Your task to perform on an android device: open app "WhatsApp Messenger" (install if not already installed), go to login, and select forgot password Image 0: 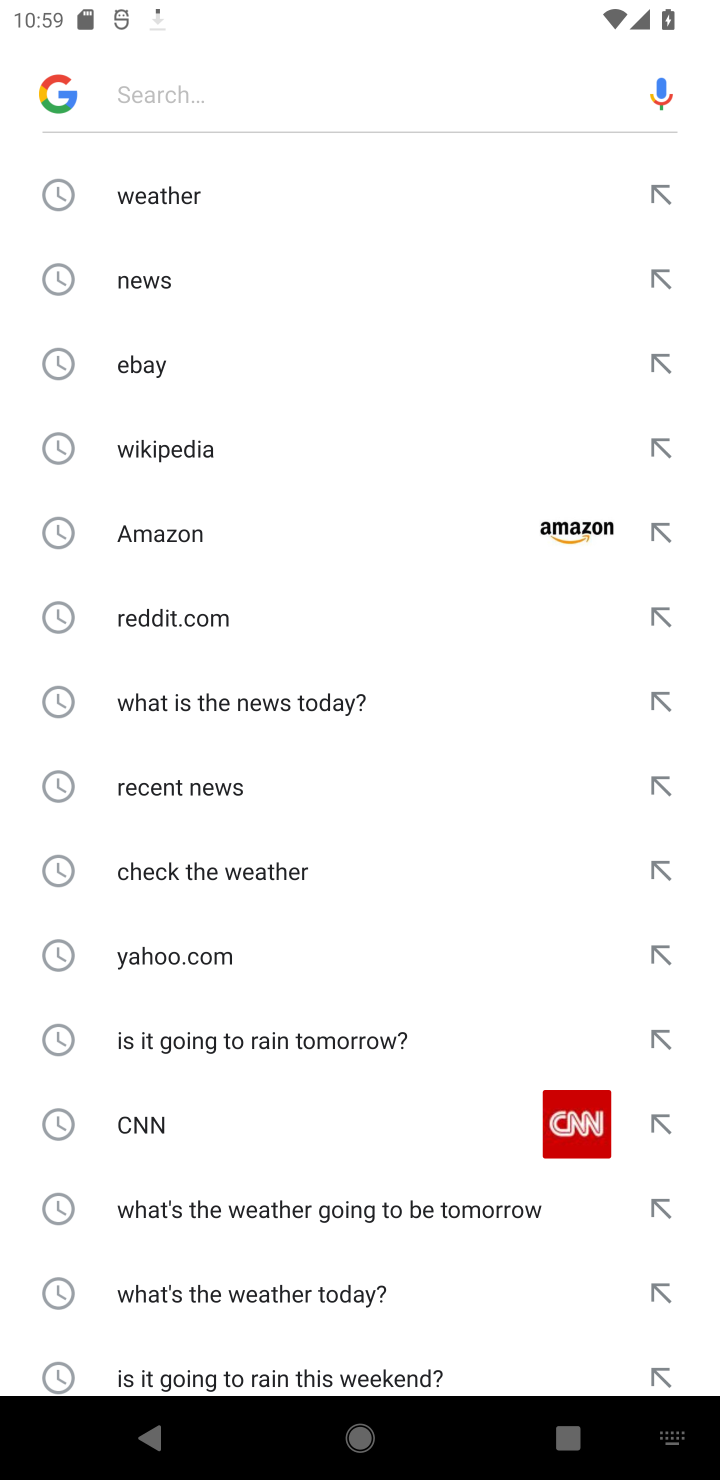
Step 0: click (583, 97)
Your task to perform on an android device: open app "WhatsApp Messenger" (install if not already installed), go to login, and select forgot password Image 1: 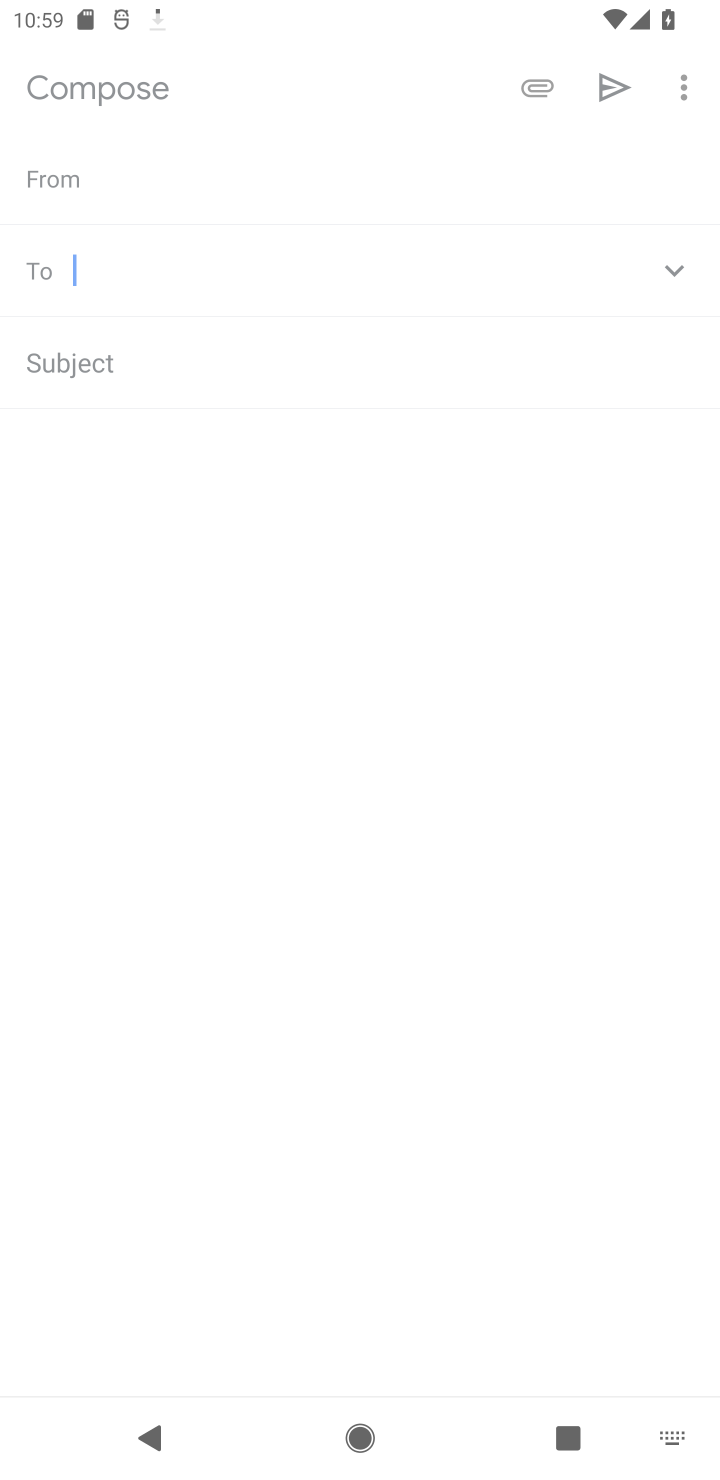
Step 1: click (654, 88)
Your task to perform on an android device: open app "WhatsApp Messenger" (install if not already installed), go to login, and select forgot password Image 2: 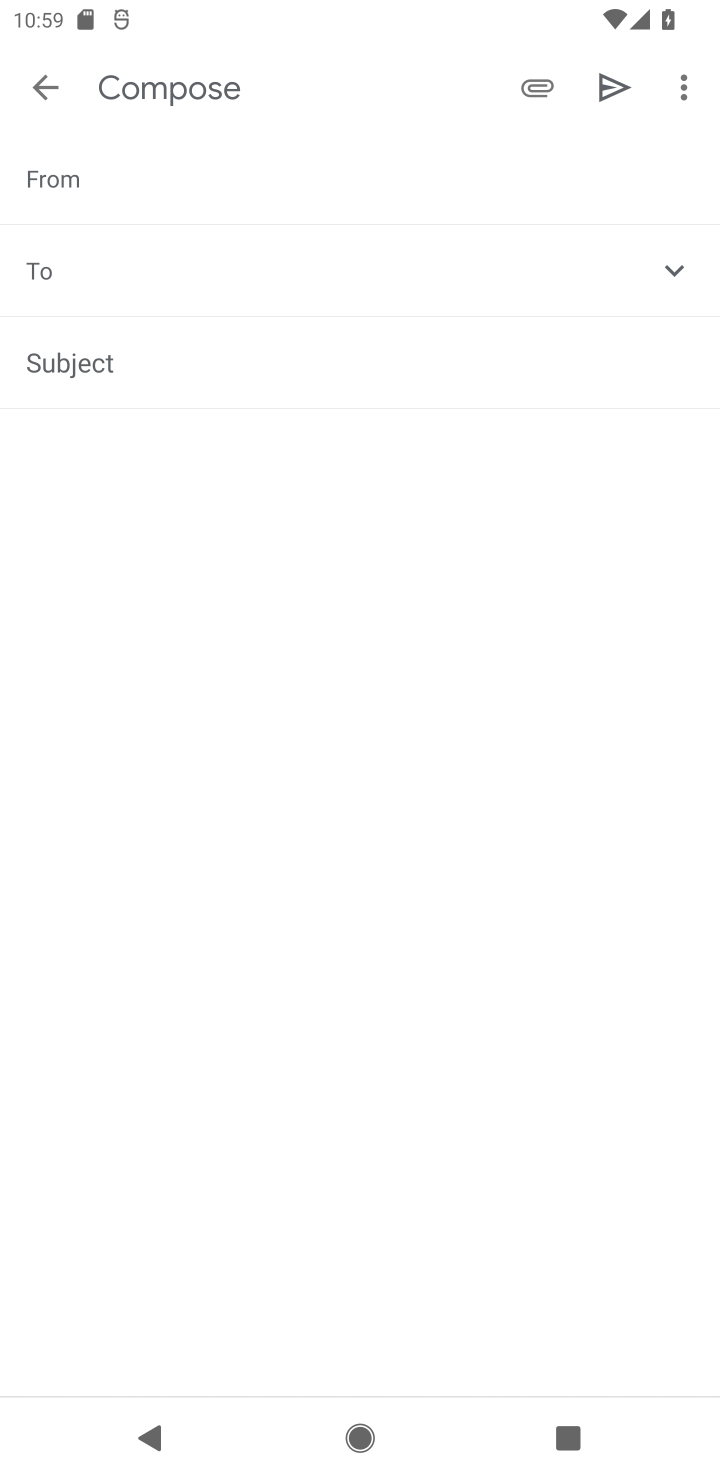
Step 2: press home button
Your task to perform on an android device: open app "WhatsApp Messenger" (install if not already installed), go to login, and select forgot password Image 3: 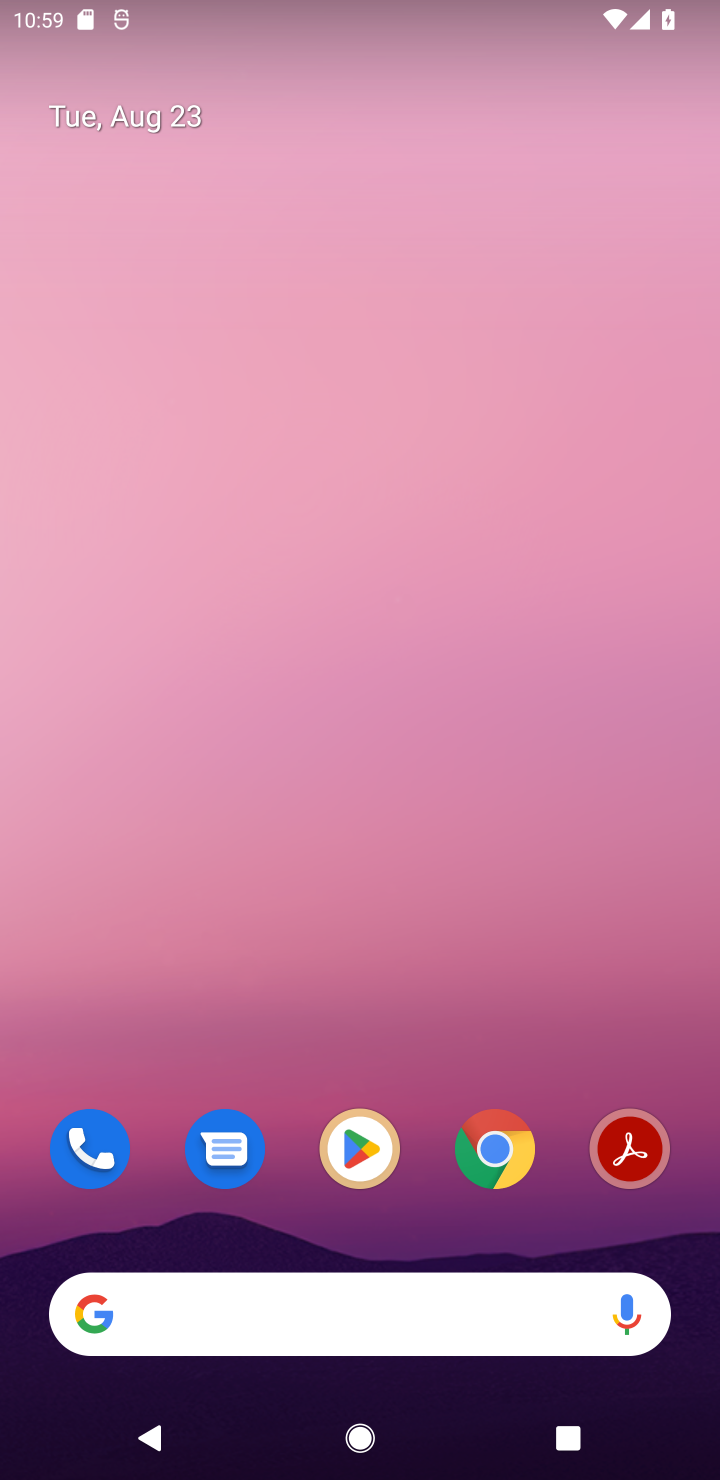
Step 3: click (363, 1163)
Your task to perform on an android device: open app "WhatsApp Messenger" (install if not already installed), go to login, and select forgot password Image 4: 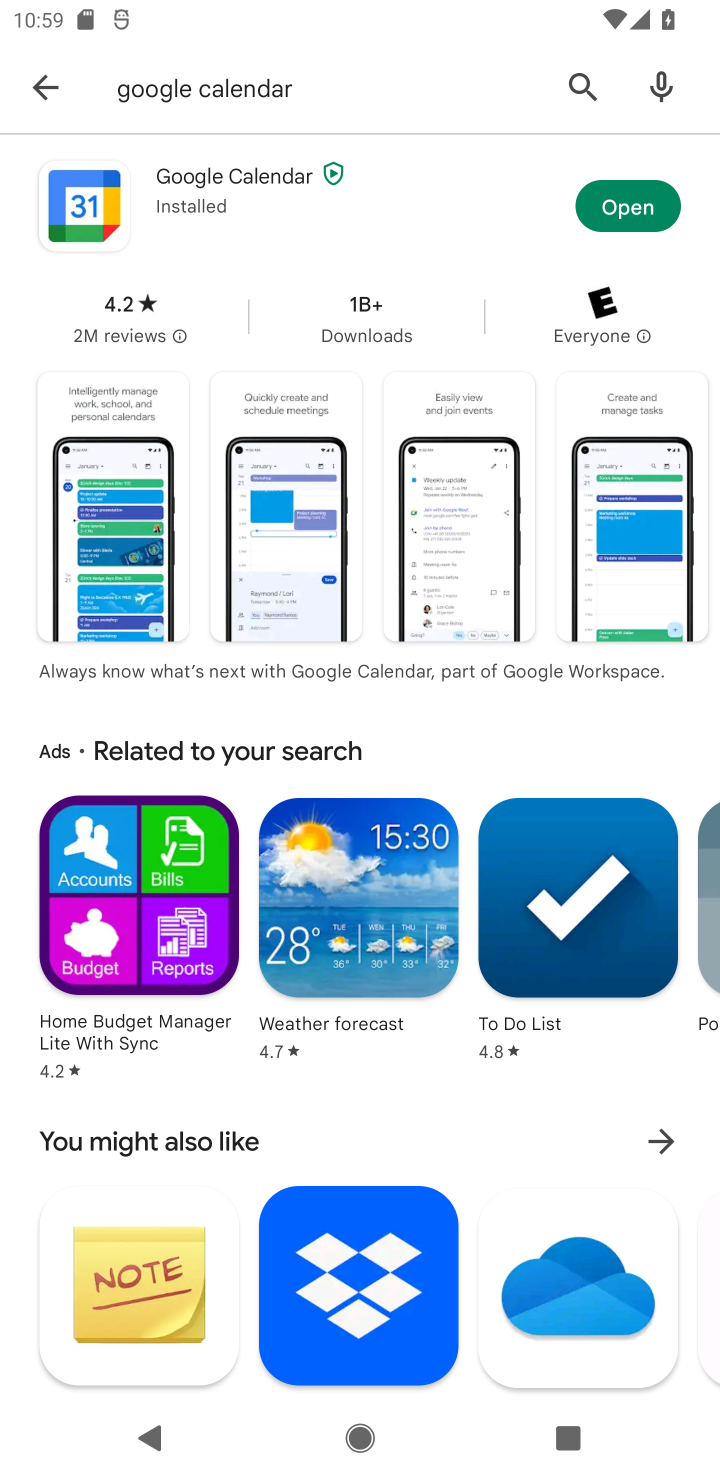
Step 4: click (571, 104)
Your task to perform on an android device: open app "WhatsApp Messenger" (install if not already installed), go to login, and select forgot password Image 5: 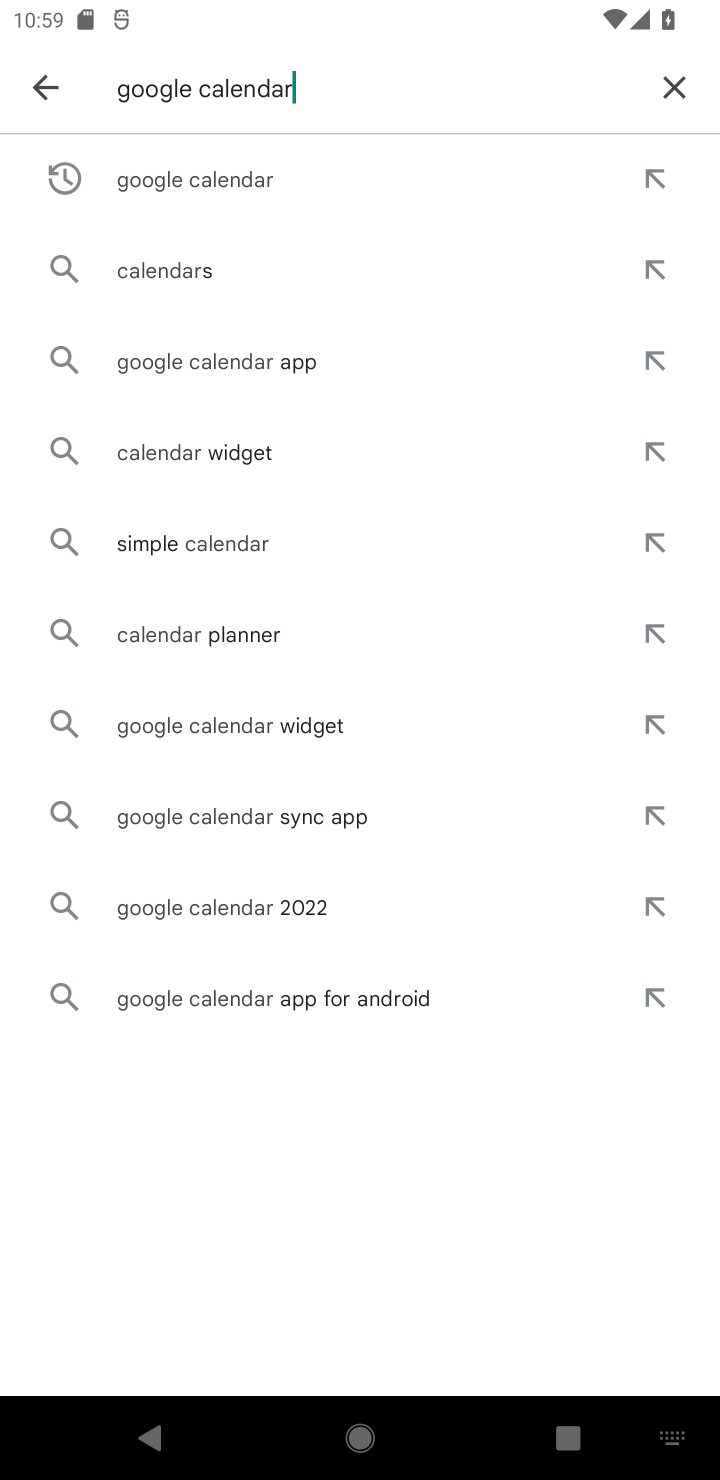
Step 5: click (662, 82)
Your task to perform on an android device: open app "WhatsApp Messenger" (install if not already installed), go to login, and select forgot password Image 6: 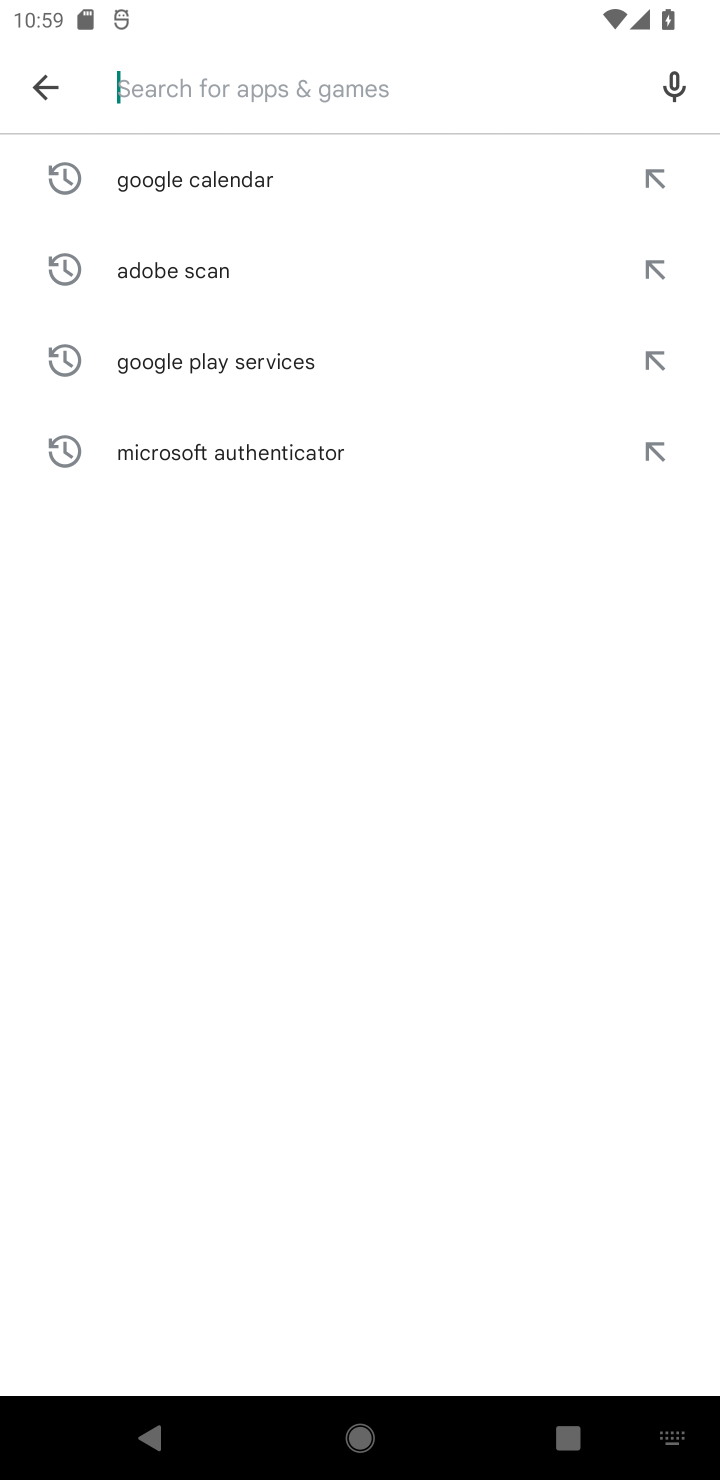
Step 6: type "whatsaap"
Your task to perform on an android device: open app "WhatsApp Messenger" (install if not already installed), go to login, and select forgot password Image 7: 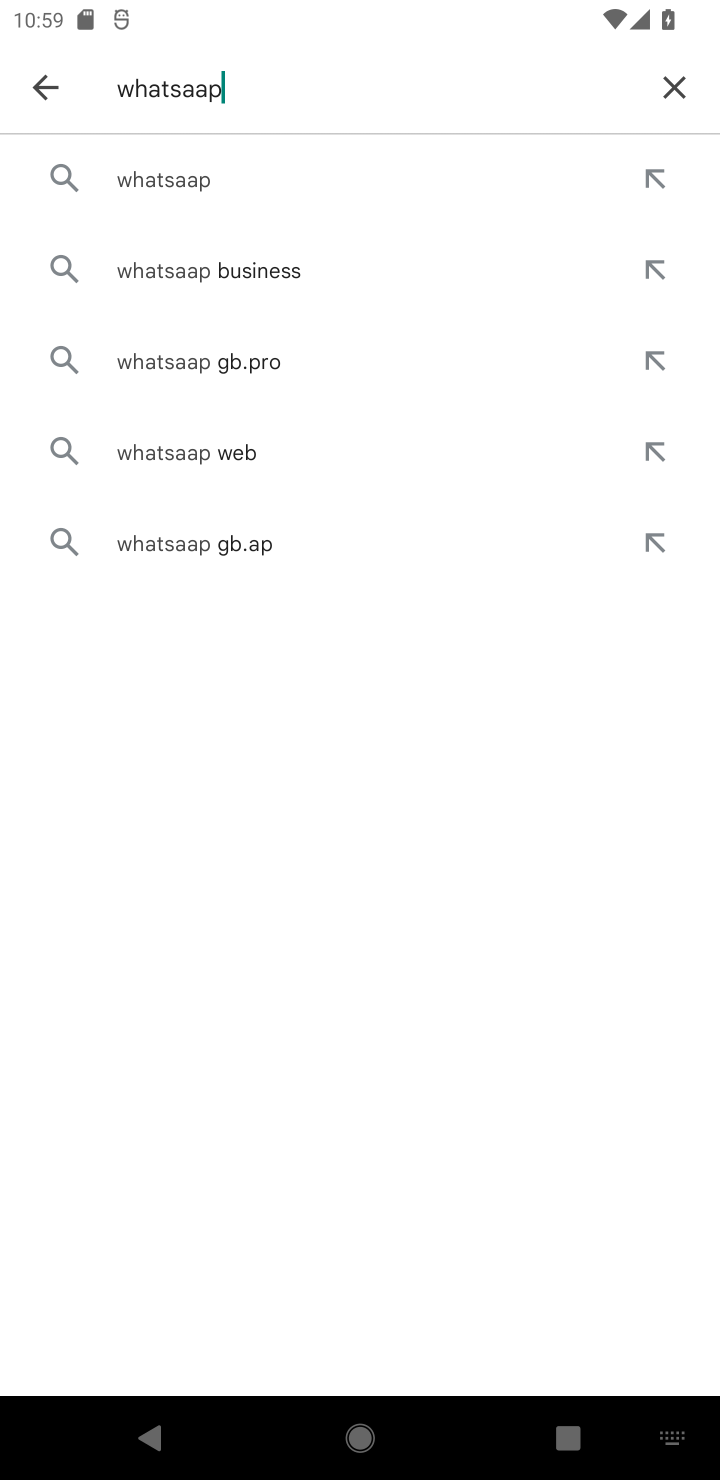
Step 7: click (341, 192)
Your task to perform on an android device: open app "WhatsApp Messenger" (install if not already installed), go to login, and select forgot password Image 8: 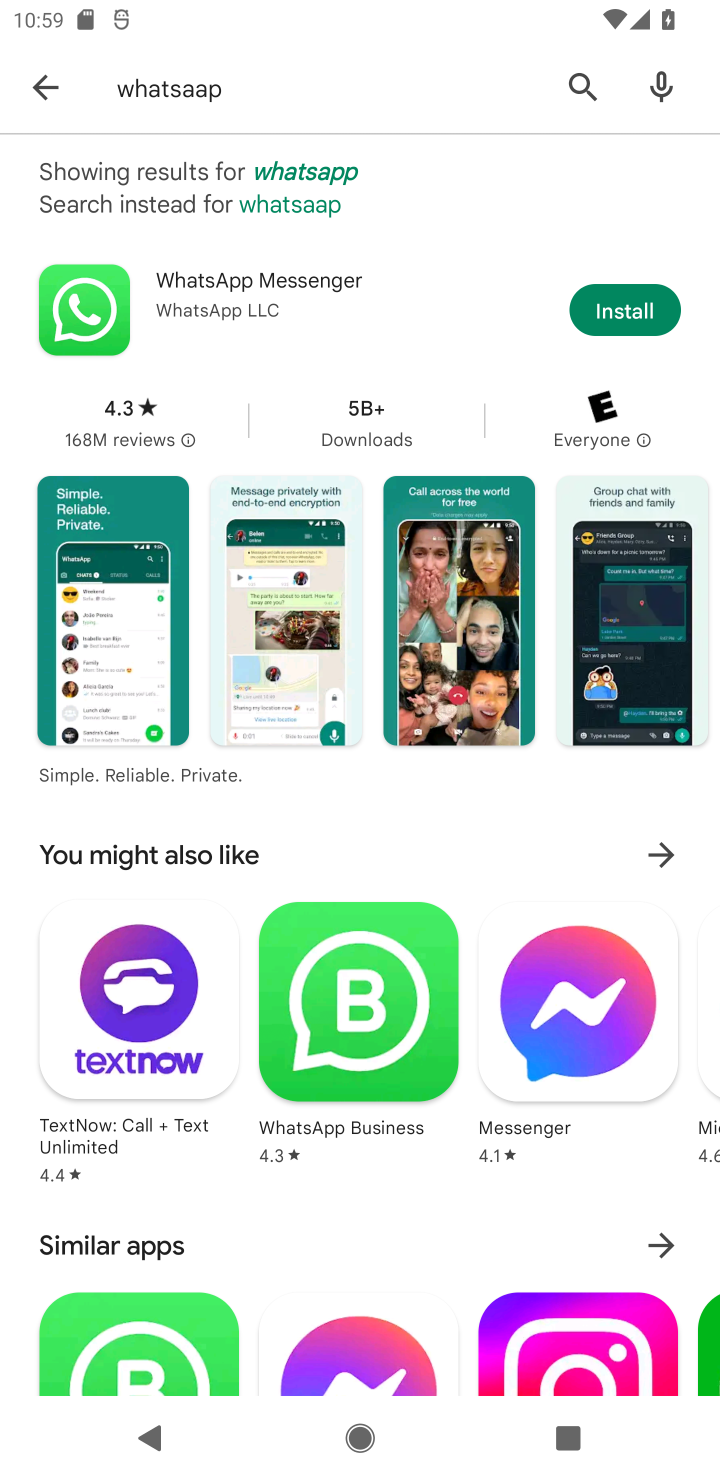
Step 8: click (640, 310)
Your task to perform on an android device: open app "WhatsApp Messenger" (install if not already installed), go to login, and select forgot password Image 9: 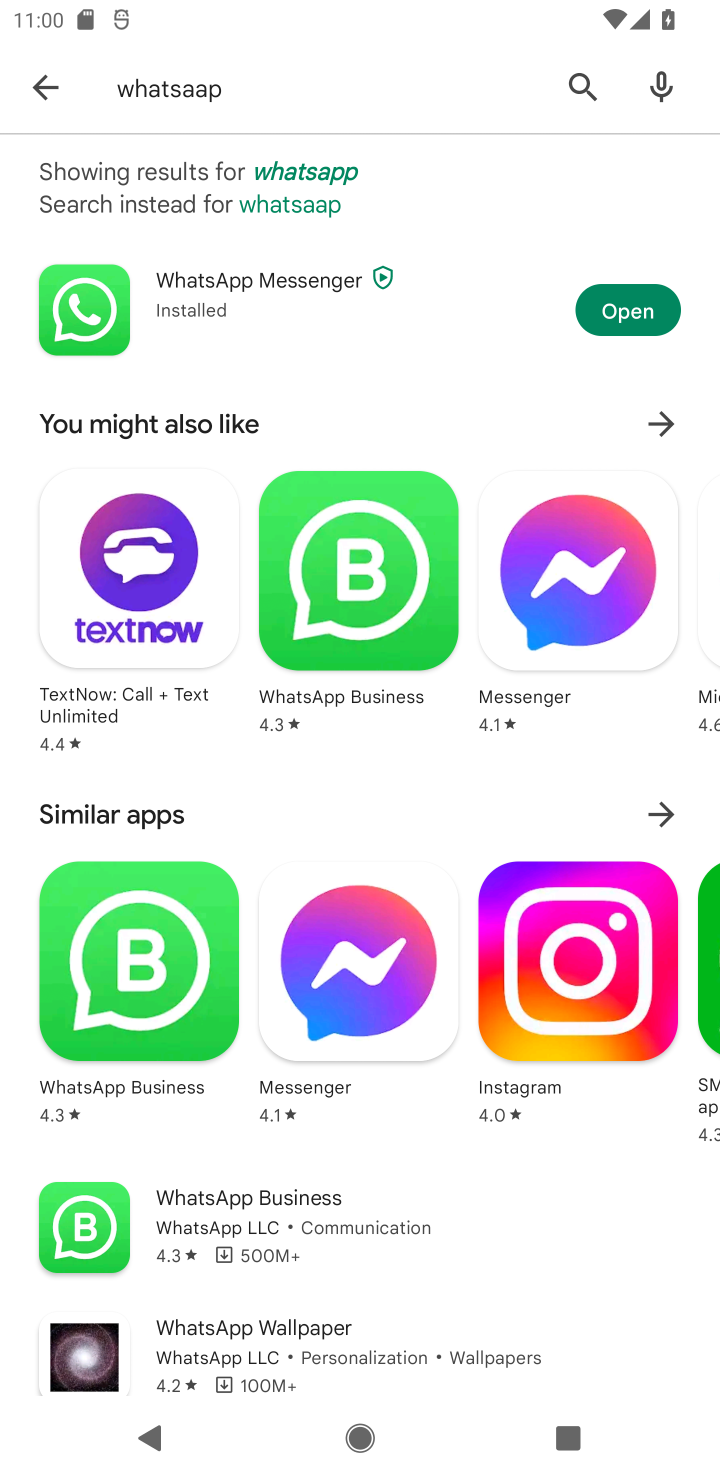
Step 9: click (593, 313)
Your task to perform on an android device: open app "WhatsApp Messenger" (install if not already installed), go to login, and select forgot password Image 10: 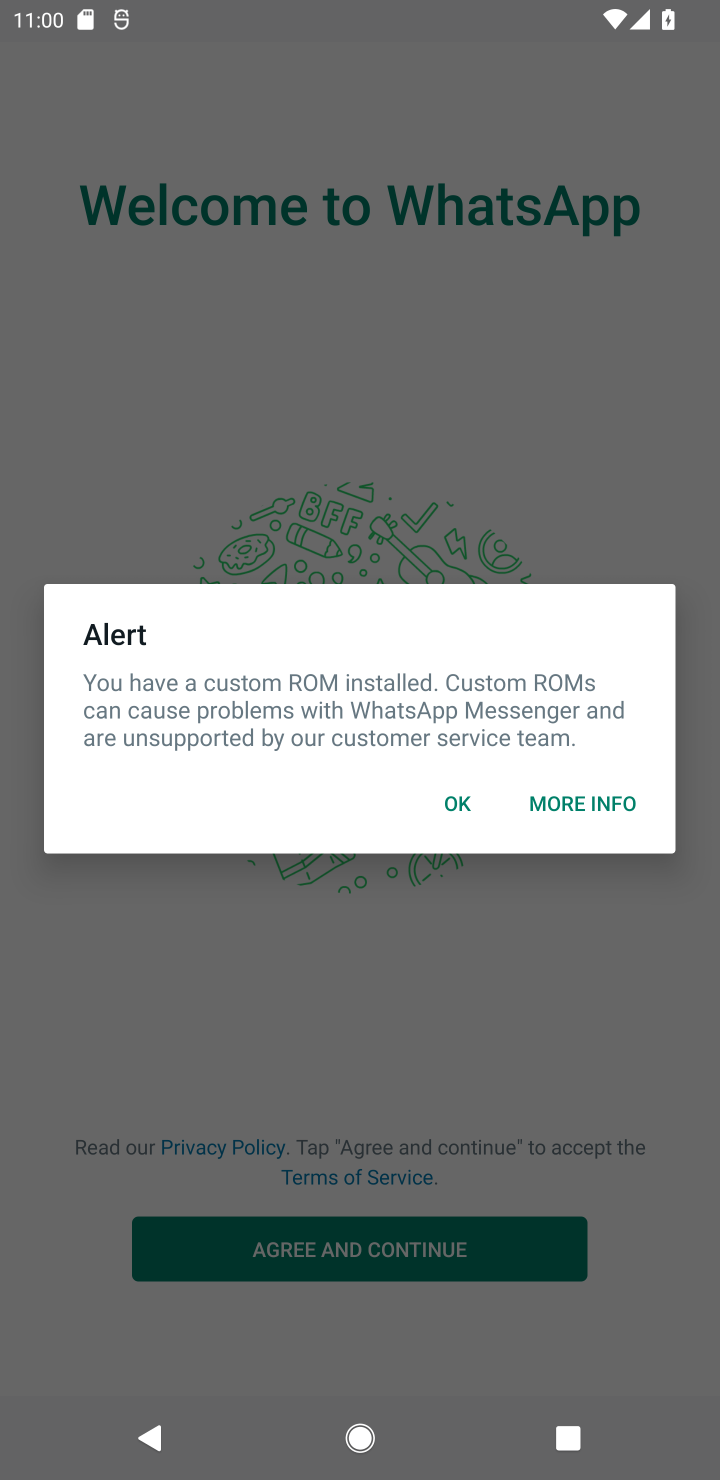
Step 10: click (466, 796)
Your task to perform on an android device: open app "WhatsApp Messenger" (install if not already installed), go to login, and select forgot password Image 11: 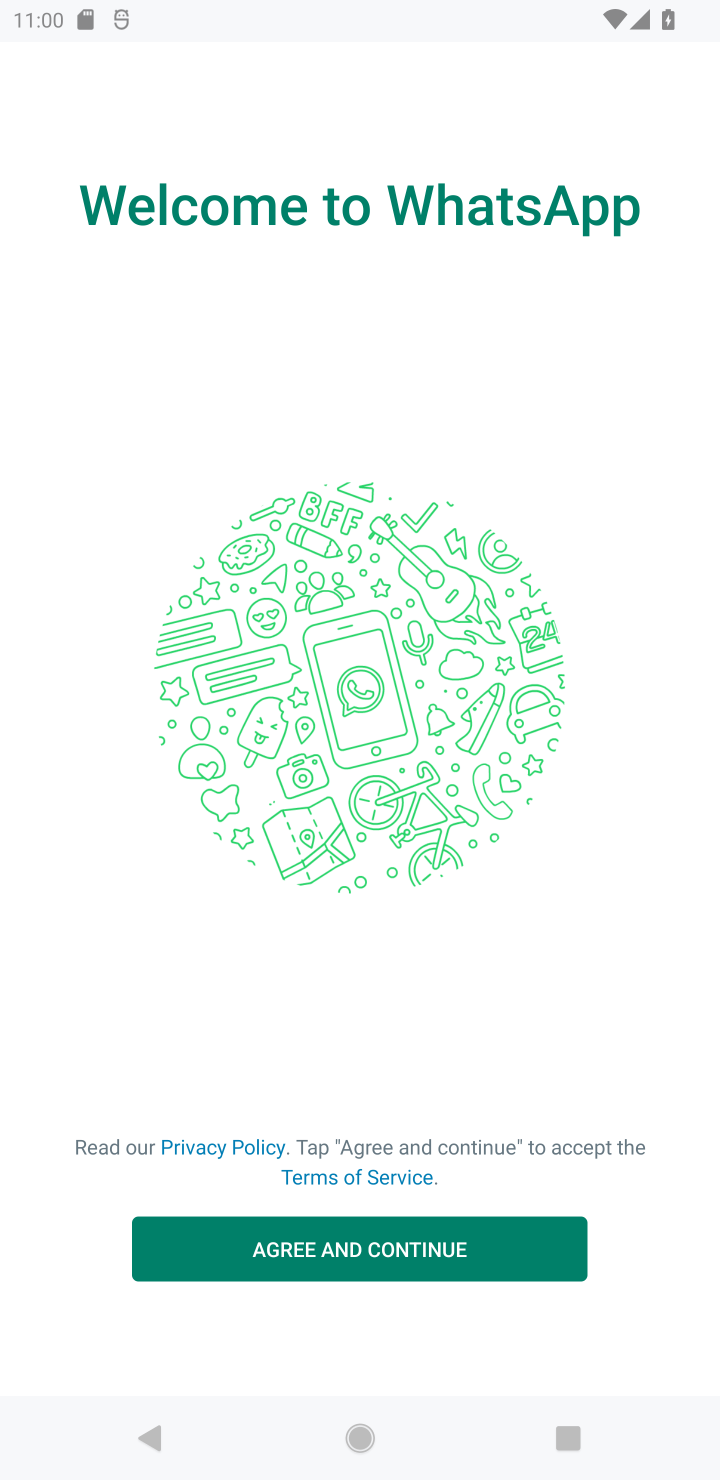
Step 11: click (437, 1251)
Your task to perform on an android device: open app "WhatsApp Messenger" (install if not already installed), go to login, and select forgot password Image 12: 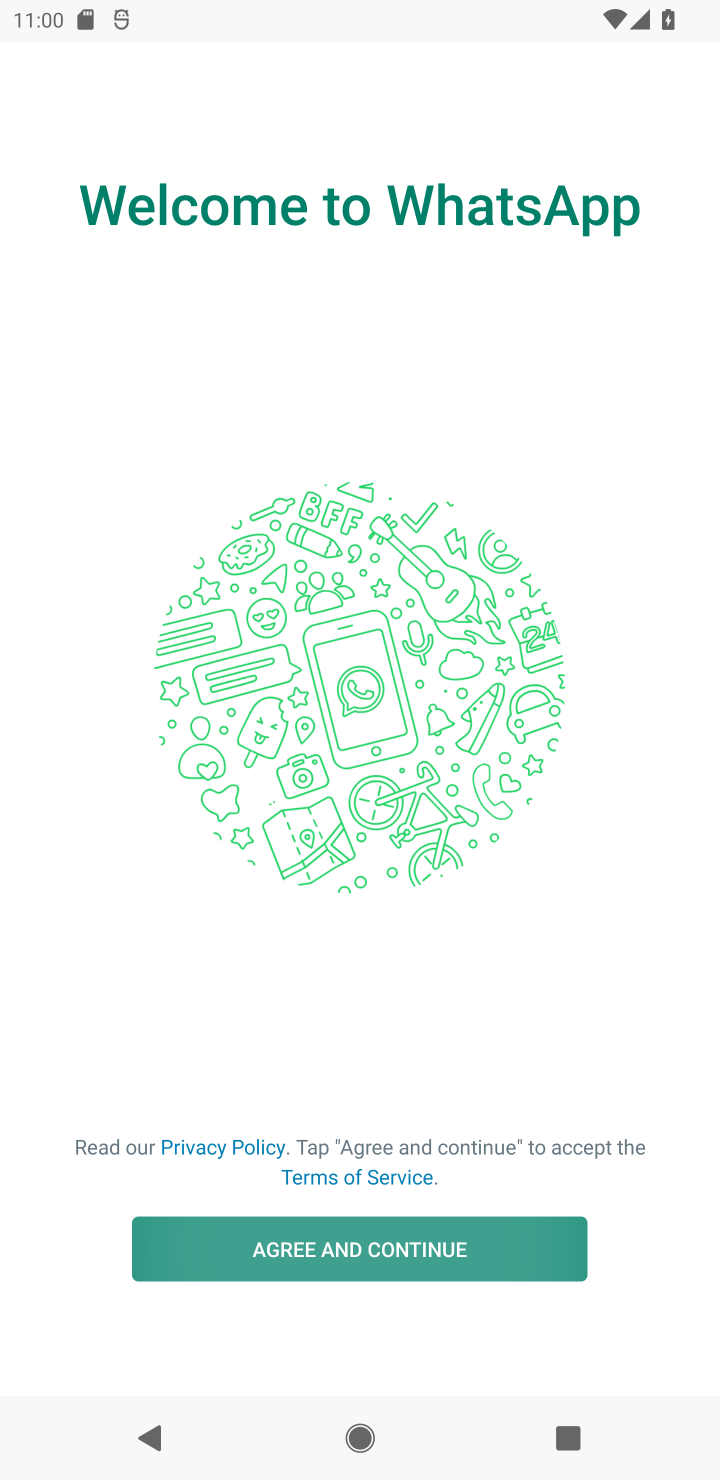
Step 12: click (437, 1251)
Your task to perform on an android device: open app "WhatsApp Messenger" (install if not already installed), go to login, and select forgot password Image 13: 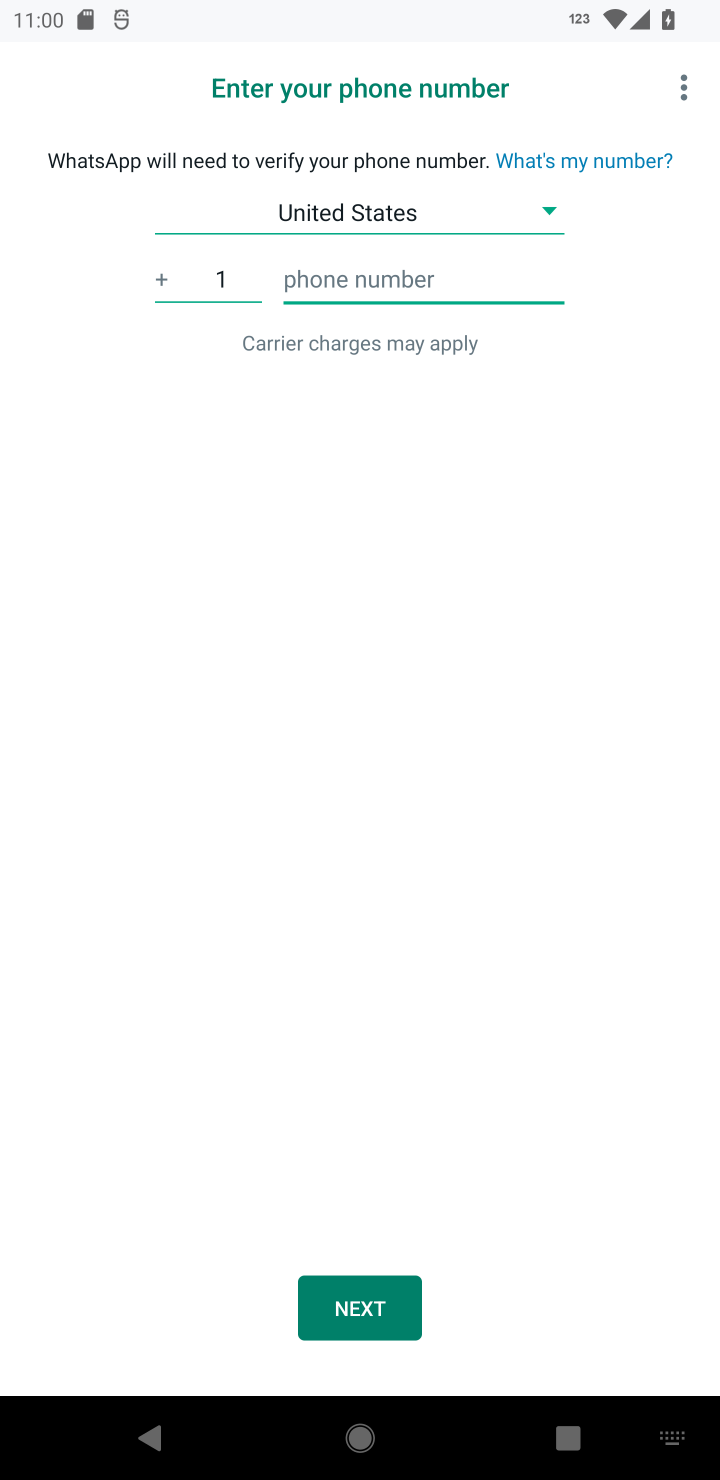
Step 13: click (376, 1305)
Your task to perform on an android device: open app "WhatsApp Messenger" (install if not already installed), go to login, and select forgot password Image 14: 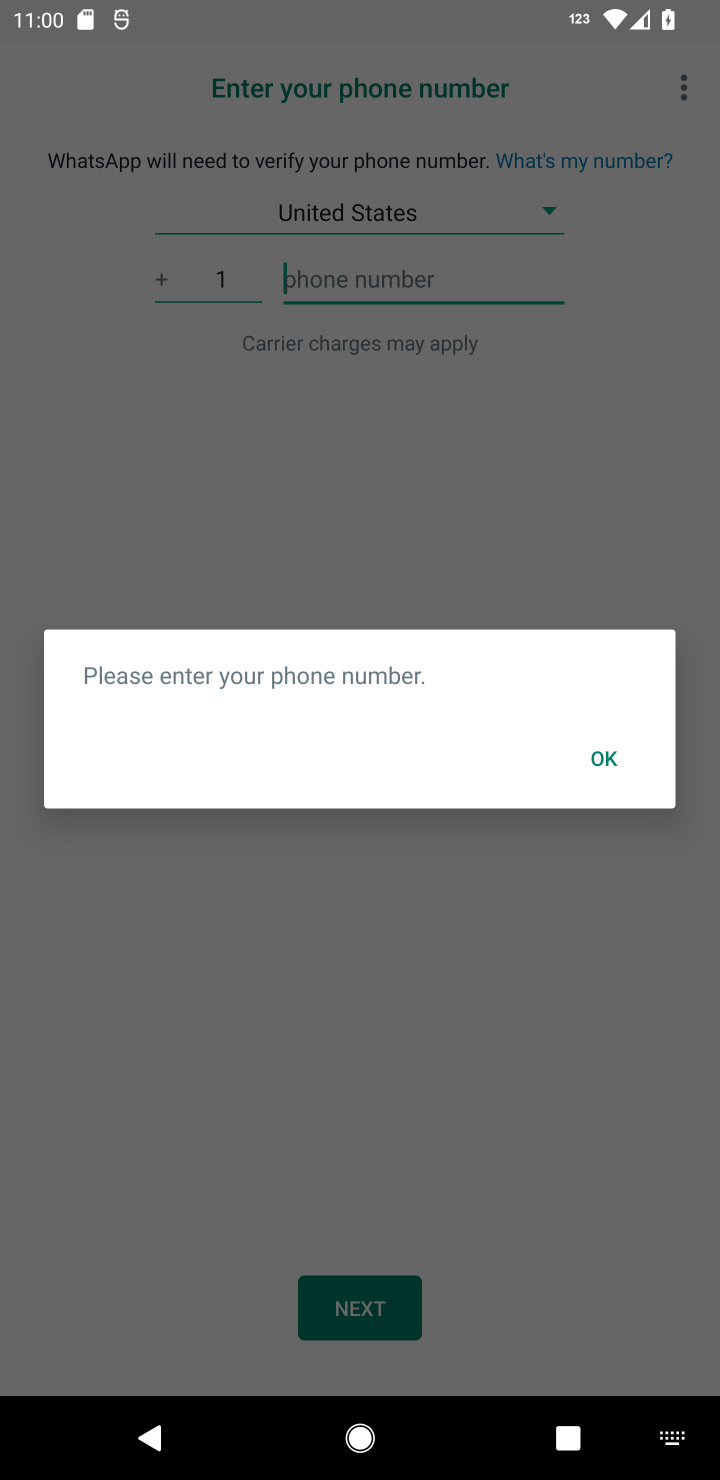
Step 14: task complete